Your task to perform on an android device: open wifi settings Image 0: 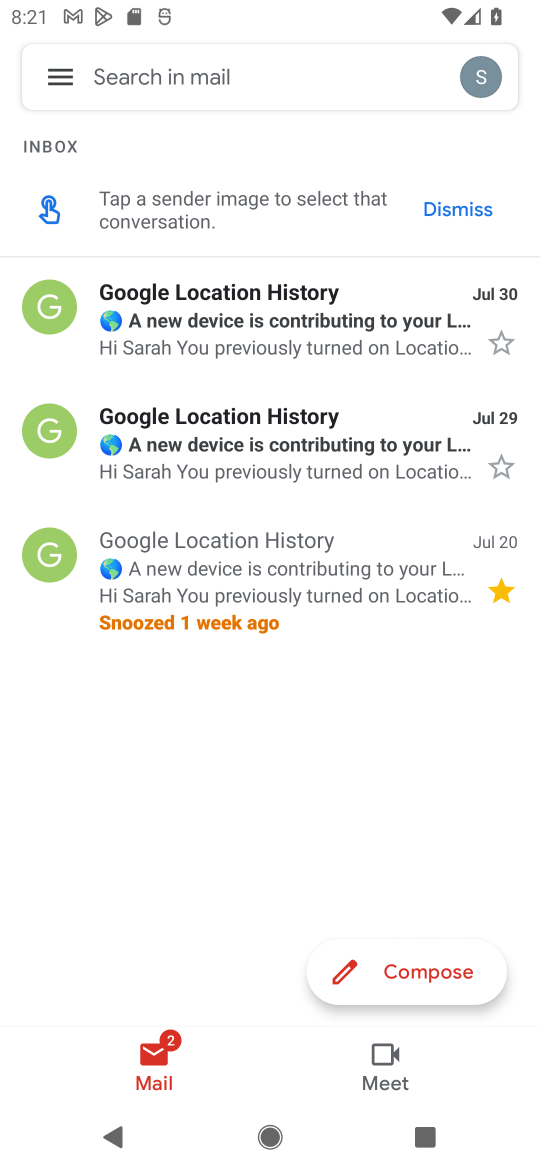
Step 0: press home button
Your task to perform on an android device: open wifi settings Image 1: 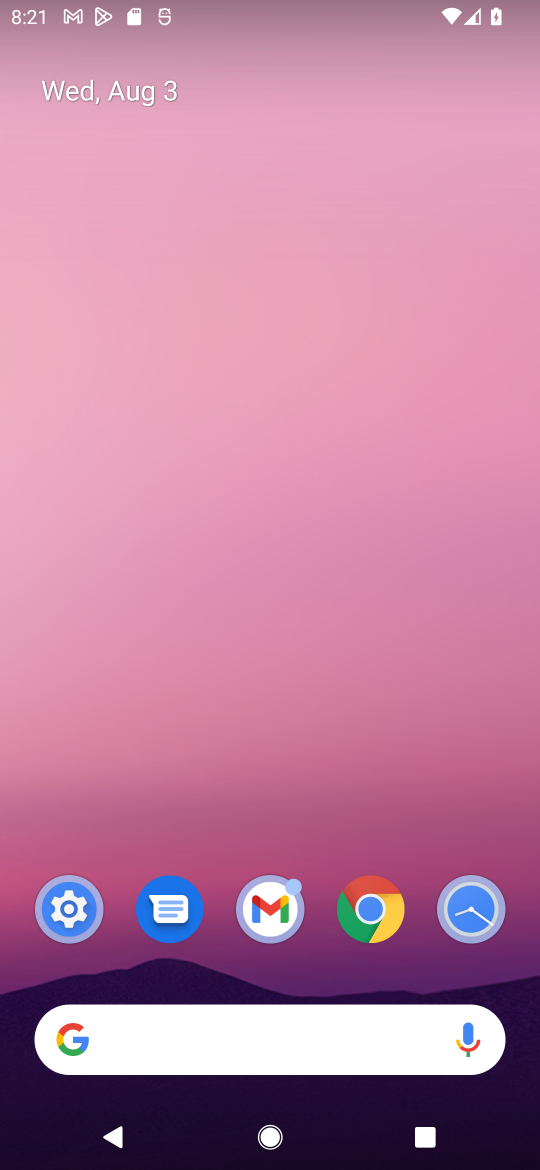
Step 1: drag from (352, 814) to (398, 227)
Your task to perform on an android device: open wifi settings Image 2: 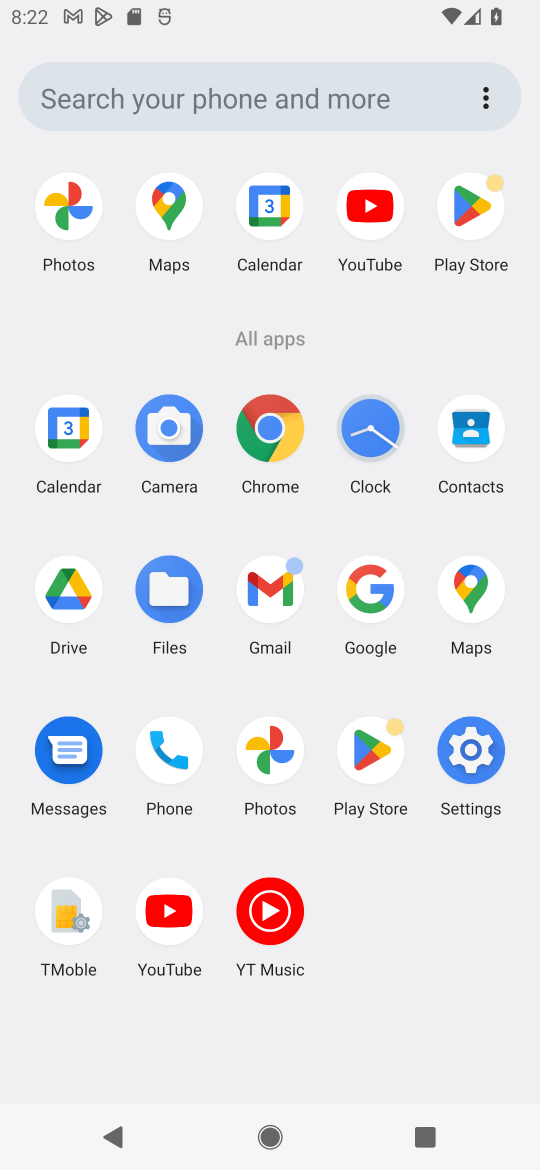
Step 2: click (474, 753)
Your task to perform on an android device: open wifi settings Image 3: 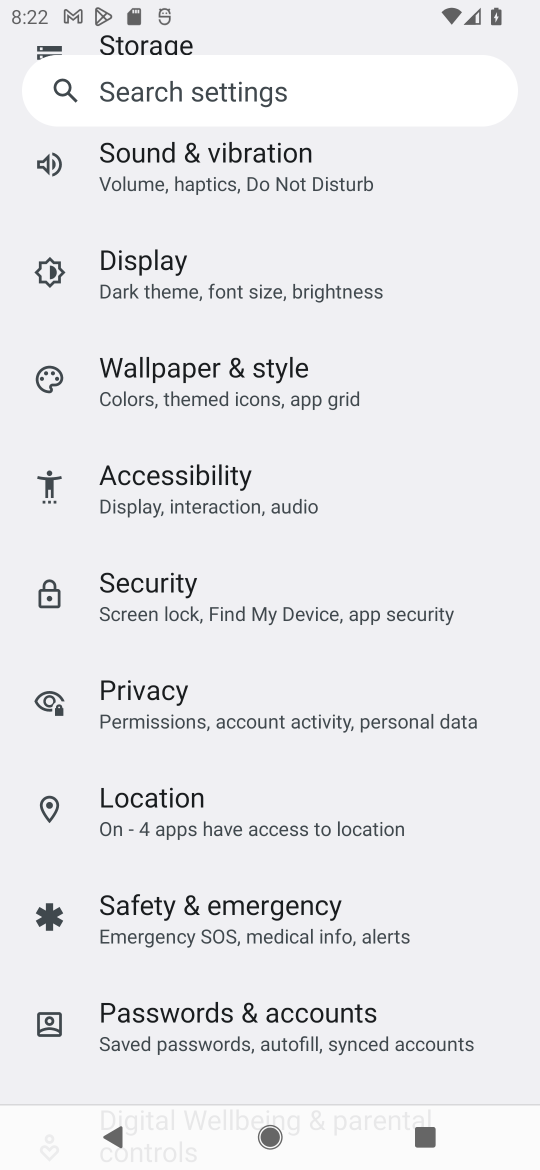
Step 3: drag from (486, 683) to (497, 876)
Your task to perform on an android device: open wifi settings Image 4: 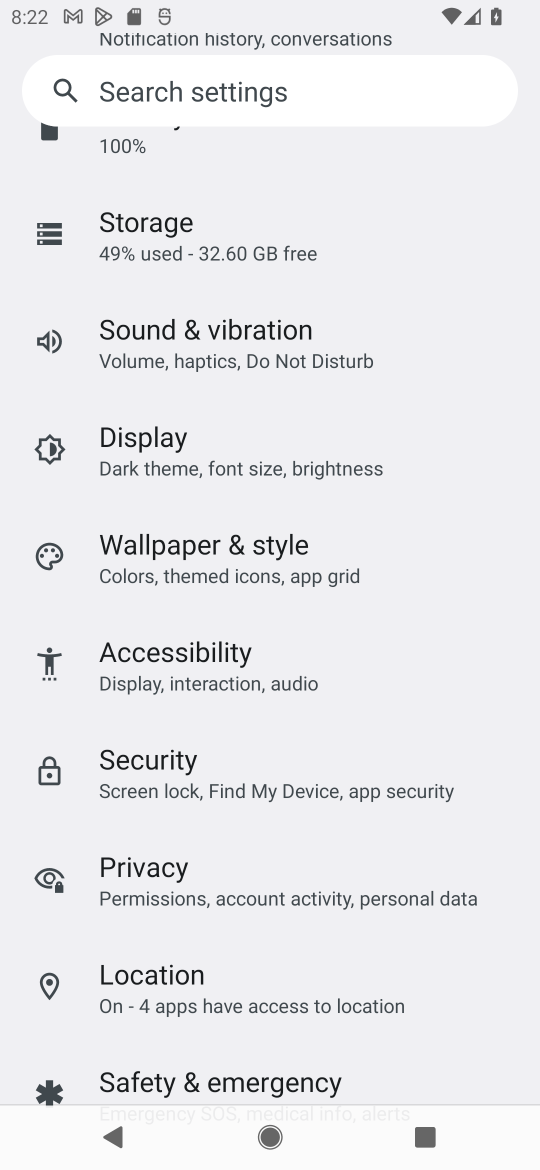
Step 4: drag from (486, 705) to (485, 869)
Your task to perform on an android device: open wifi settings Image 5: 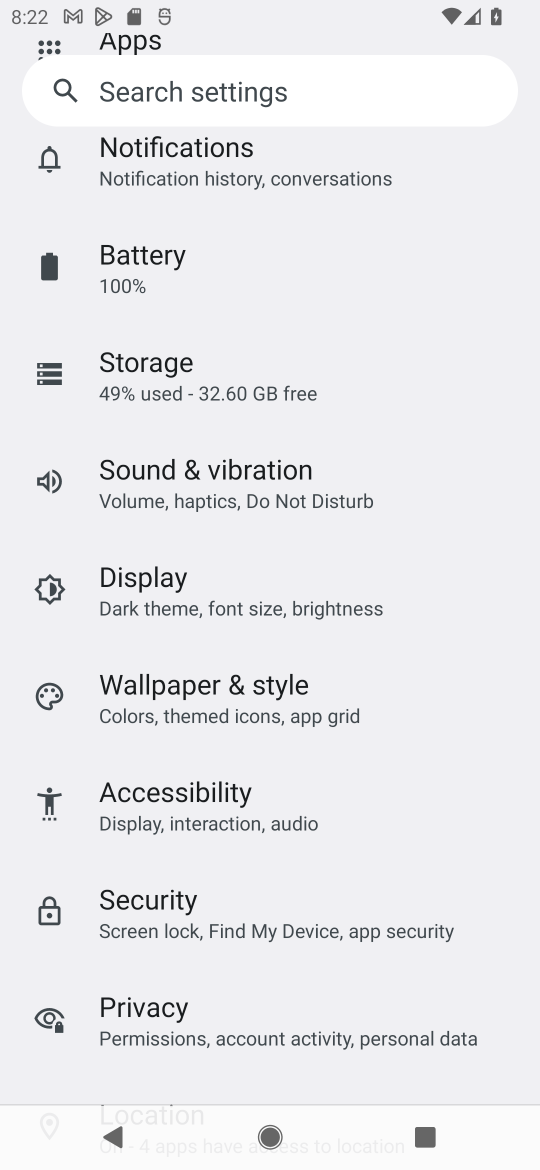
Step 5: drag from (469, 706) to (473, 846)
Your task to perform on an android device: open wifi settings Image 6: 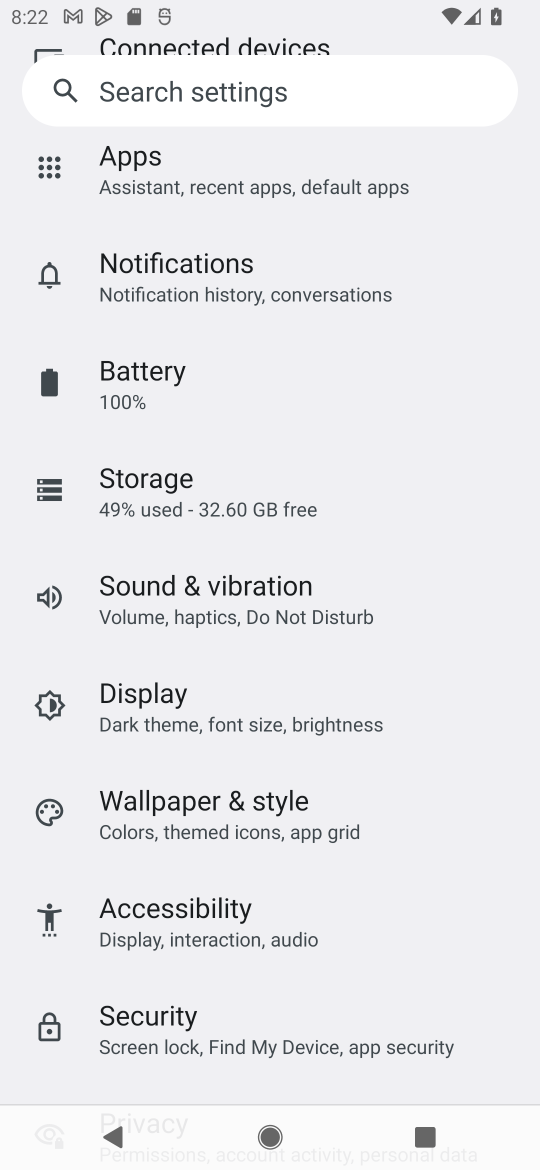
Step 6: drag from (470, 673) to (470, 818)
Your task to perform on an android device: open wifi settings Image 7: 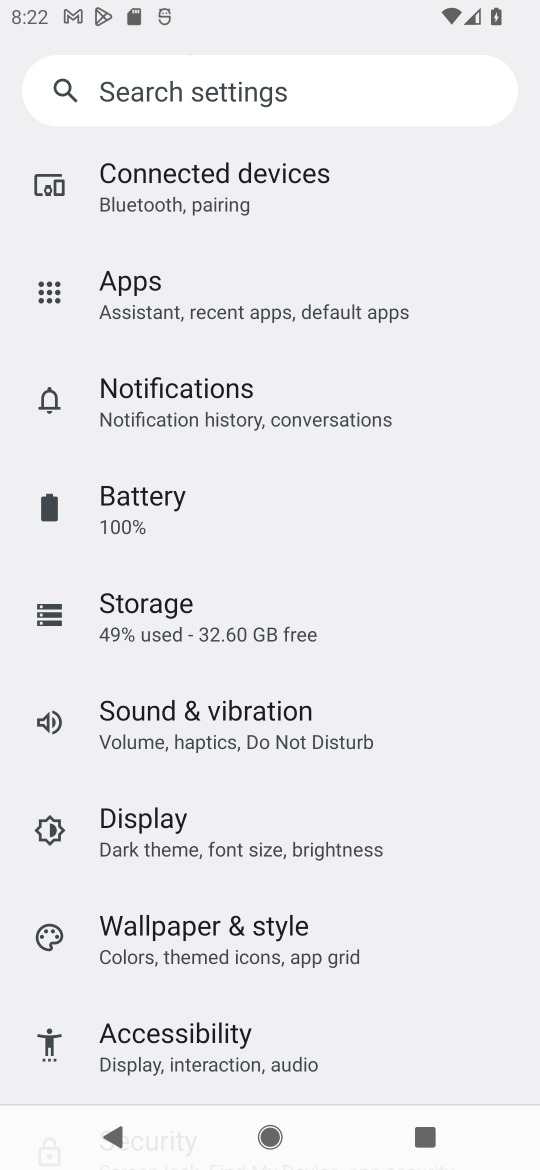
Step 7: drag from (460, 637) to (467, 757)
Your task to perform on an android device: open wifi settings Image 8: 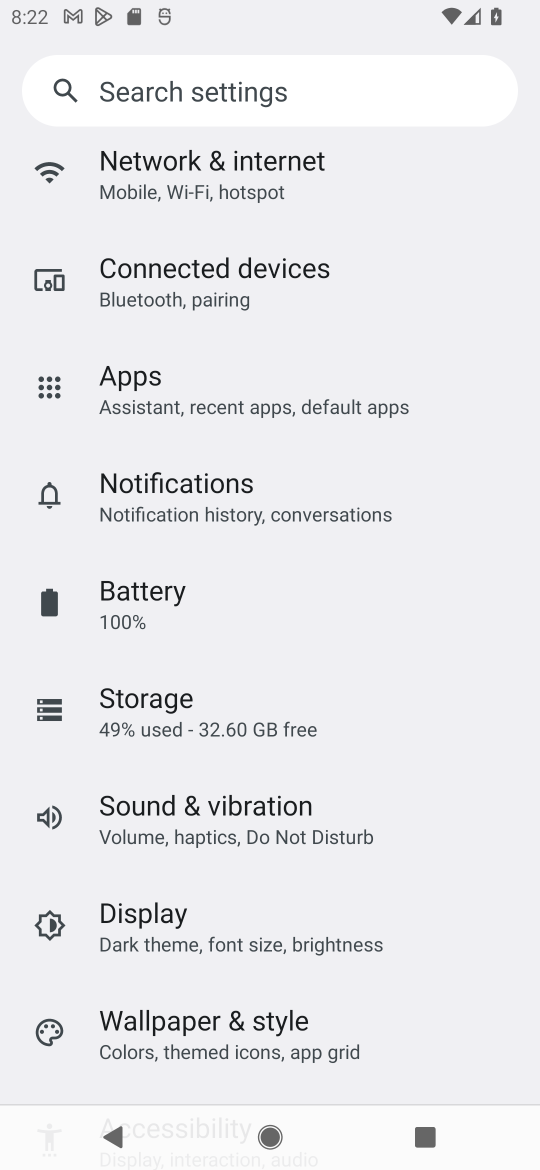
Step 8: drag from (457, 590) to (454, 748)
Your task to perform on an android device: open wifi settings Image 9: 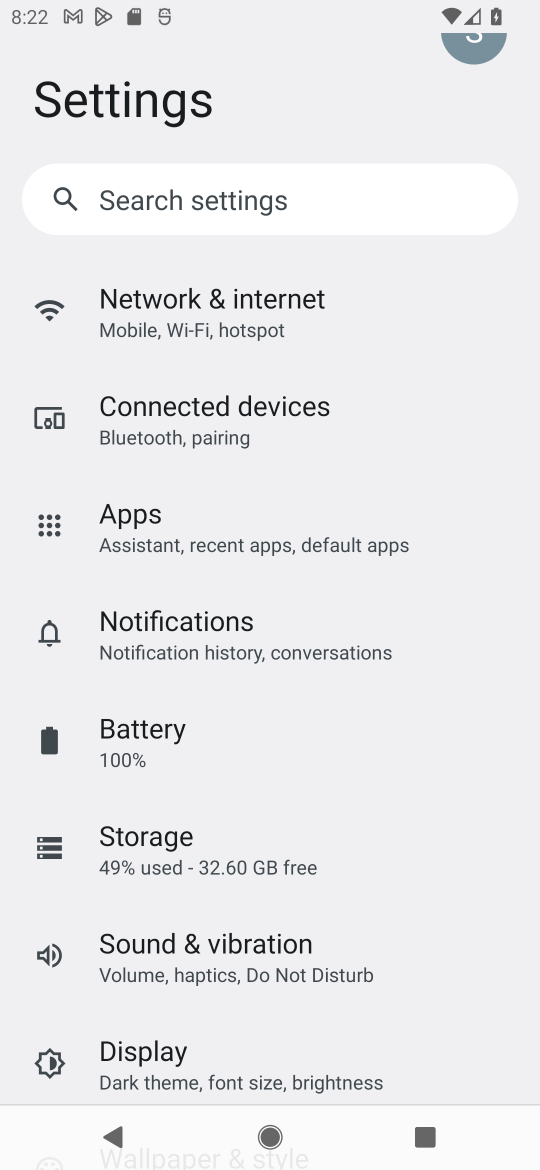
Step 9: drag from (460, 558) to (453, 724)
Your task to perform on an android device: open wifi settings Image 10: 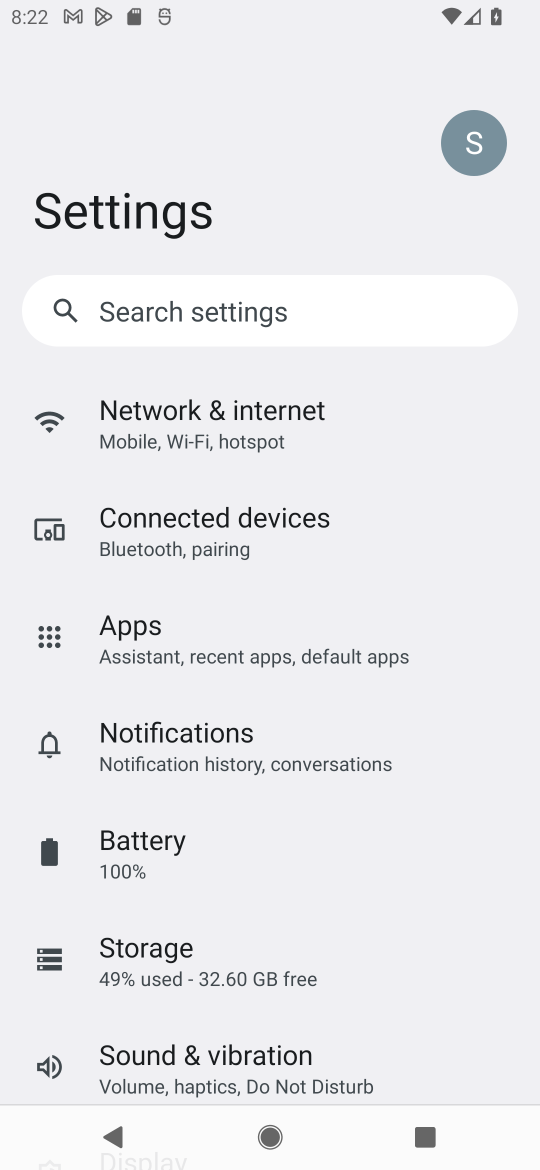
Step 10: drag from (465, 550) to (466, 775)
Your task to perform on an android device: open wifi settings Image 11: 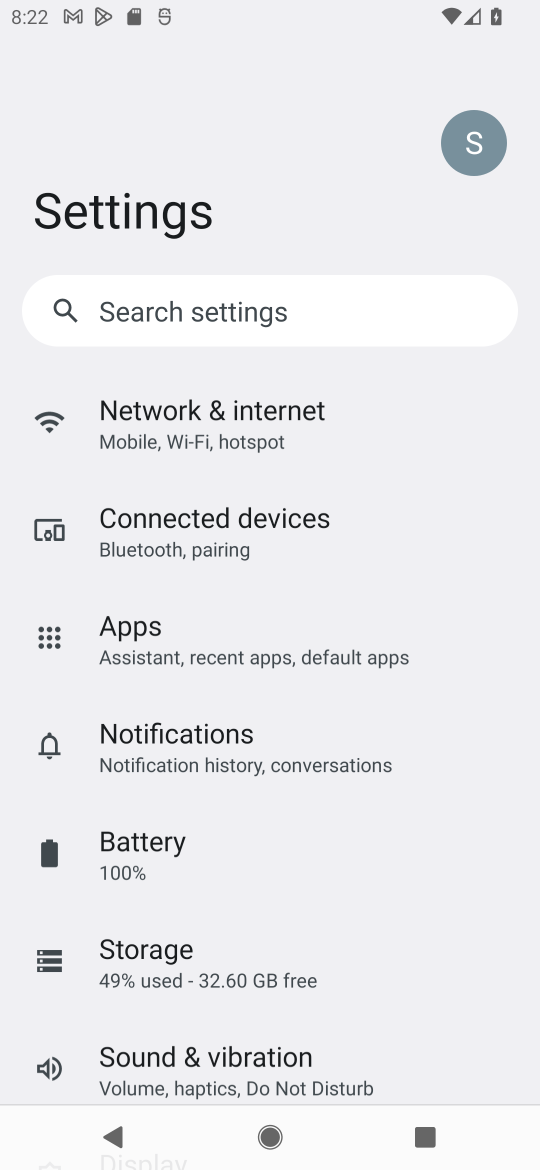
Step 11: click (295, 411)
Your task to perform on an android device: open wifi settings Image 12: 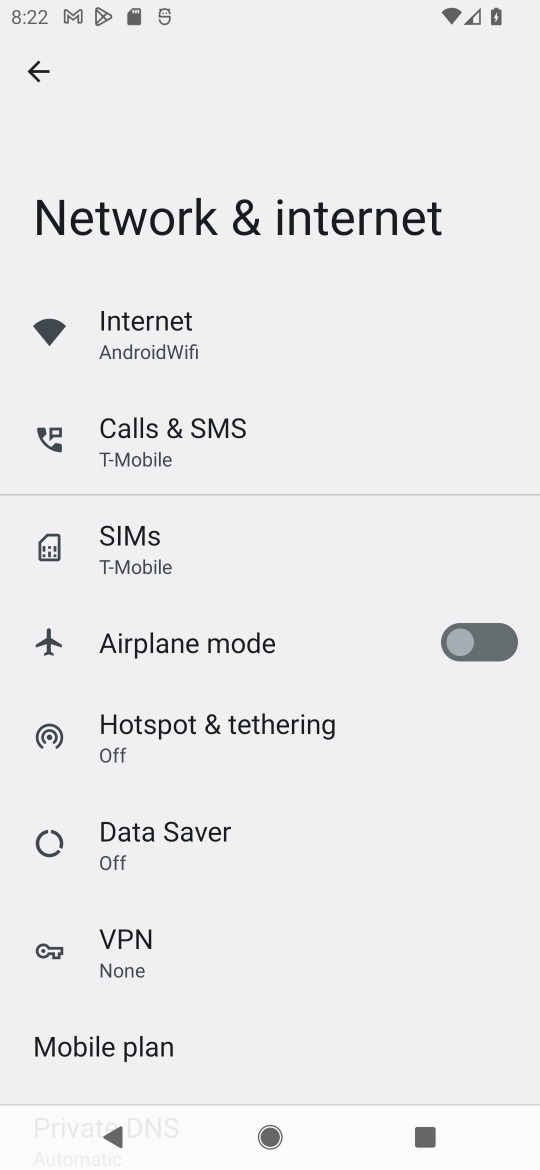
Step 12: click (165, 345)
Your task to perform on an android device: open wifi settings Image 13: 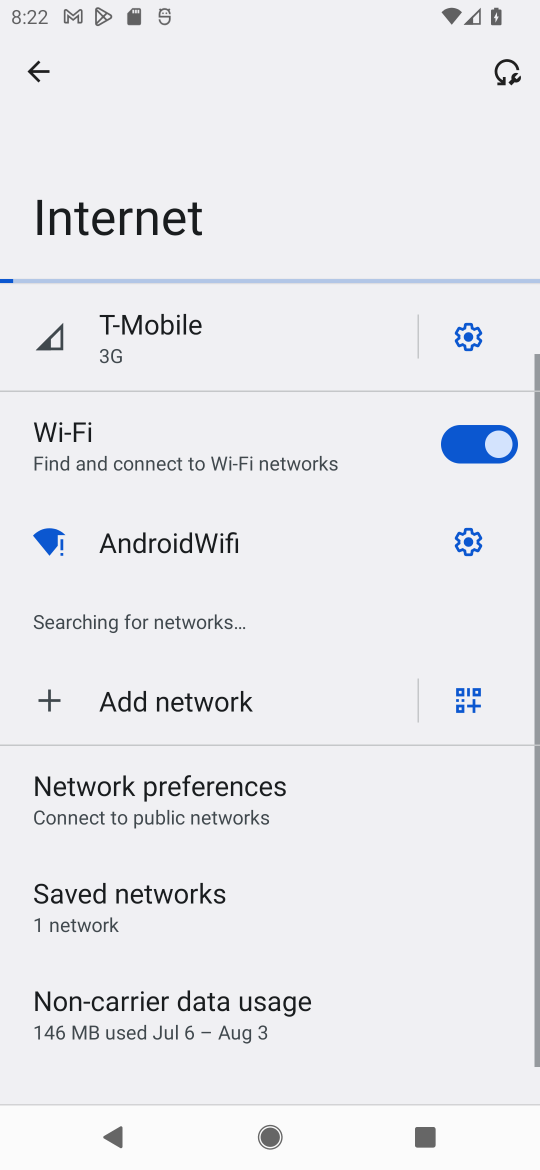
Step 13: task complete